Your task to perform on an android device: check storage Image 0: 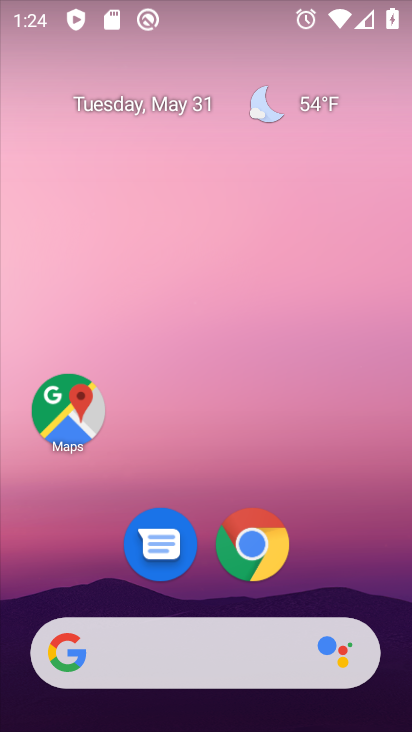
Step 0: drag from (204, 589) to (242, 29)
Your task to perform on an android device: check storage Image 1: 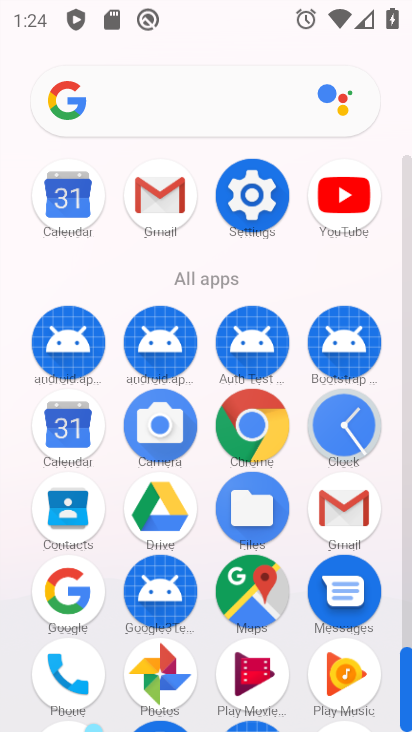
Step 1: click (250, 192)
Your task to perform on an android device: check storage Image 2: 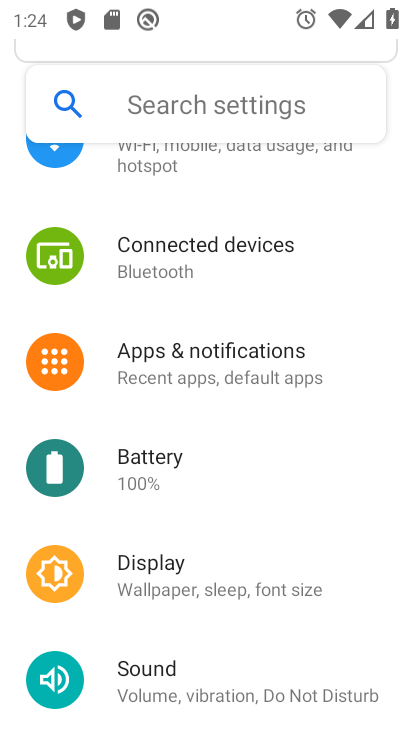
Step 2: drag from (206, 357) to (209, 94)
Your task to perform on an android device: check storage Image 3: 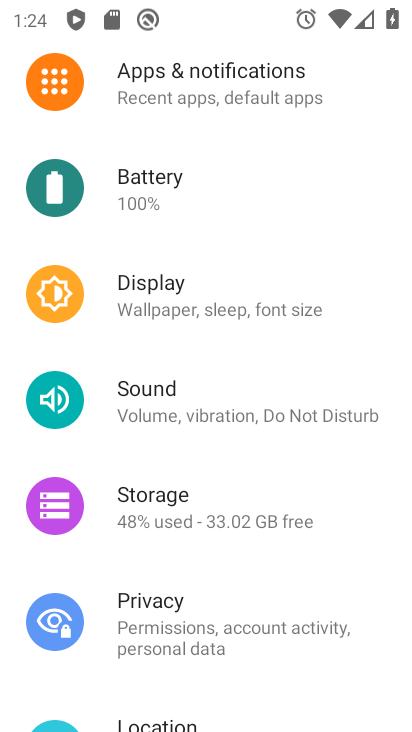
Step 3: click (149, 517)
Your task to perform on an android device: check storage Image 4: 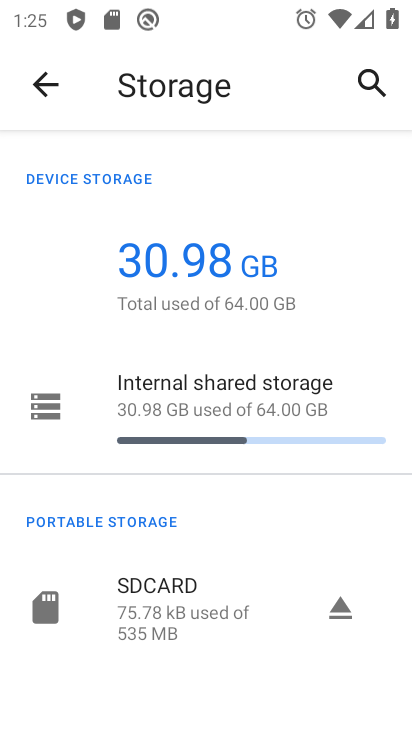
Step 4: task complete